Your task to perform on an android device: Do I have any events today? Image 0: 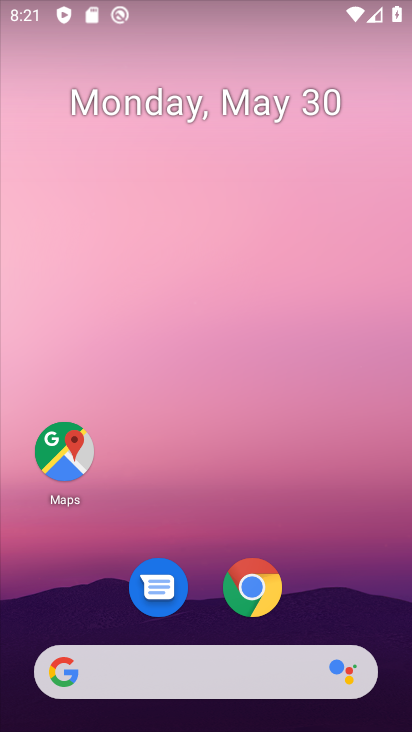
Step 0: drag from (196, 524) to (263, 67)
Your task to perform on an android device: Do I have any events today? Image 1: 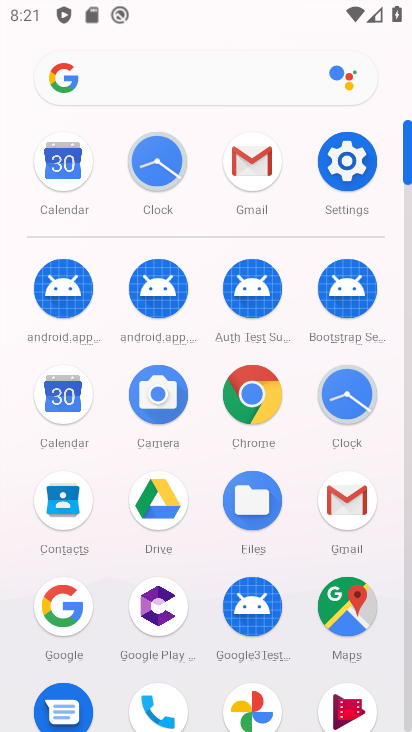
Step 1: click (59, 403)
Your task to perform on an android device: Do I have any events today? Image 2: 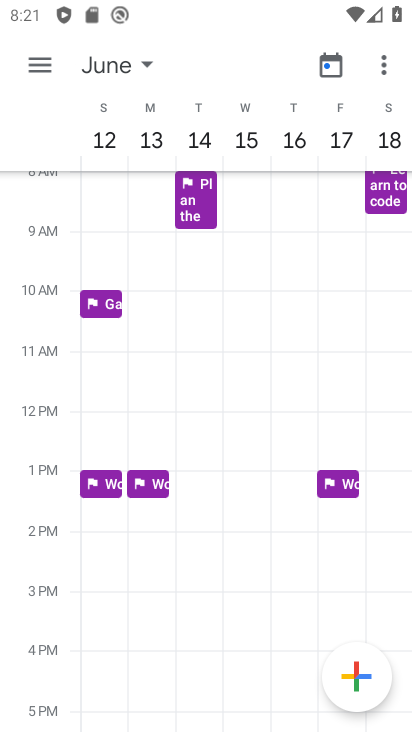
Step 2: drag from (189, 286) to (402, 280)
Your task to perform on an android device: Do I have any events today? Image 3: 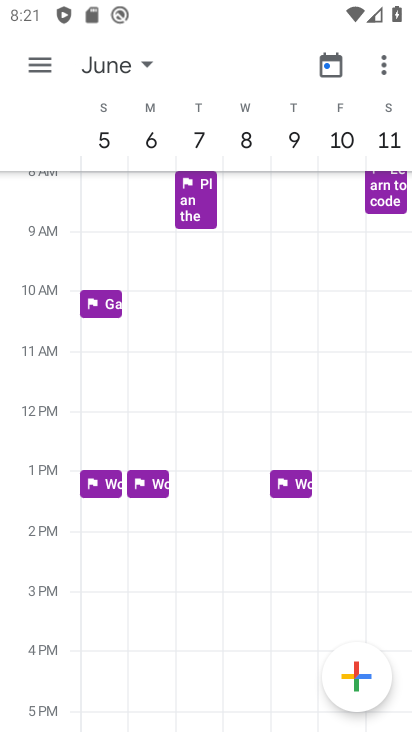
Step 3: drag from (164, 313) to (385, 328)
Your task to perform on an android device: Do I have any events today? Image 4: 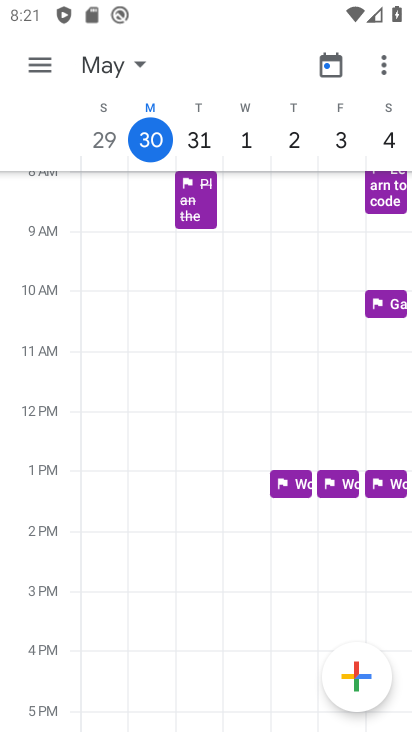
Step 4: click (154, 132)
Your task to perform on an android device: Do I have any events today? Image 5: 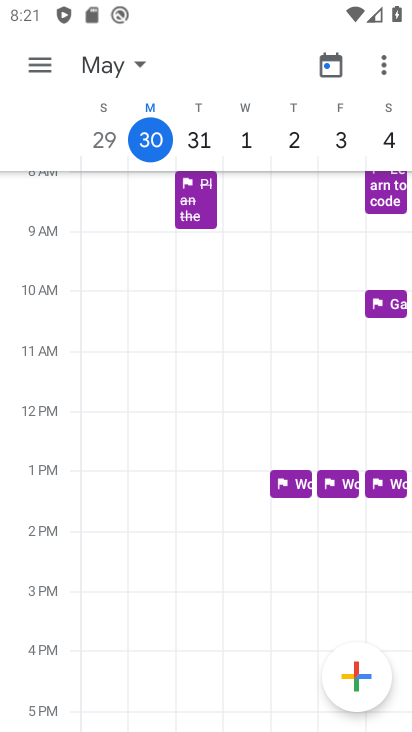
Step 5: click (154, 132)
Your task to perform on an android device: Do I have any events today? Image 6: 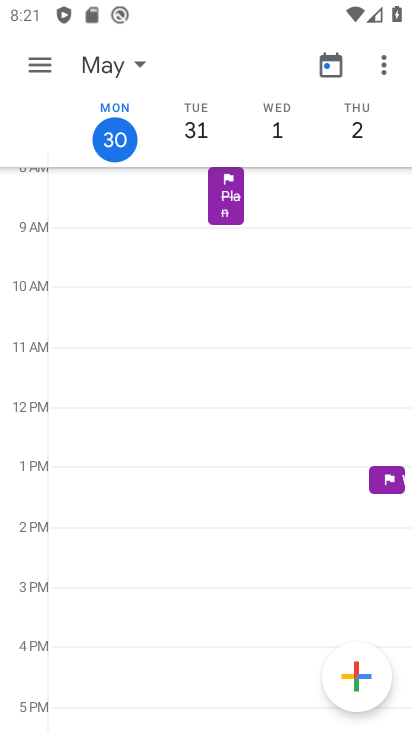
Step 6: click (154, 132)
Your task to perform on an android device: Do I have any events today? Image 7: 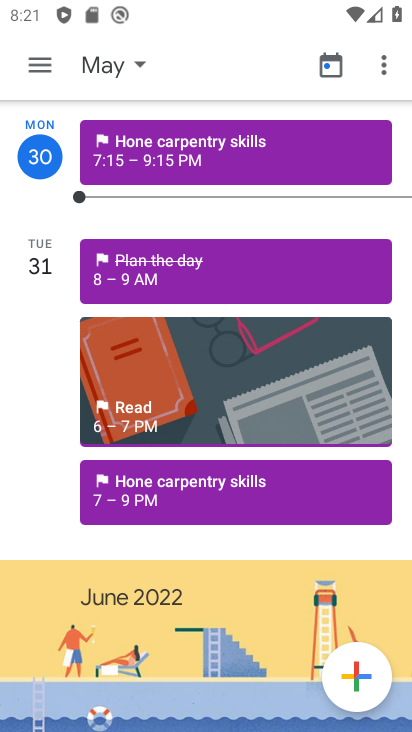
Step 7: task complete